Your task to perform on an android device: Search for the best rated headphones on Walmart Image 0: 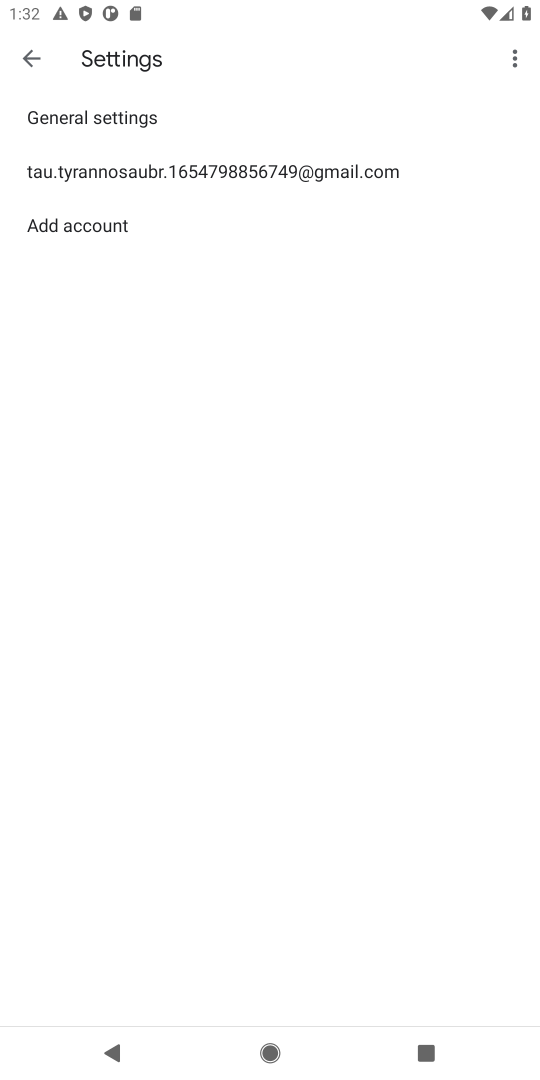
Step 0: press home button
Your task to perform on an android device: Search for the best rated headphones on Walmart Image 1: 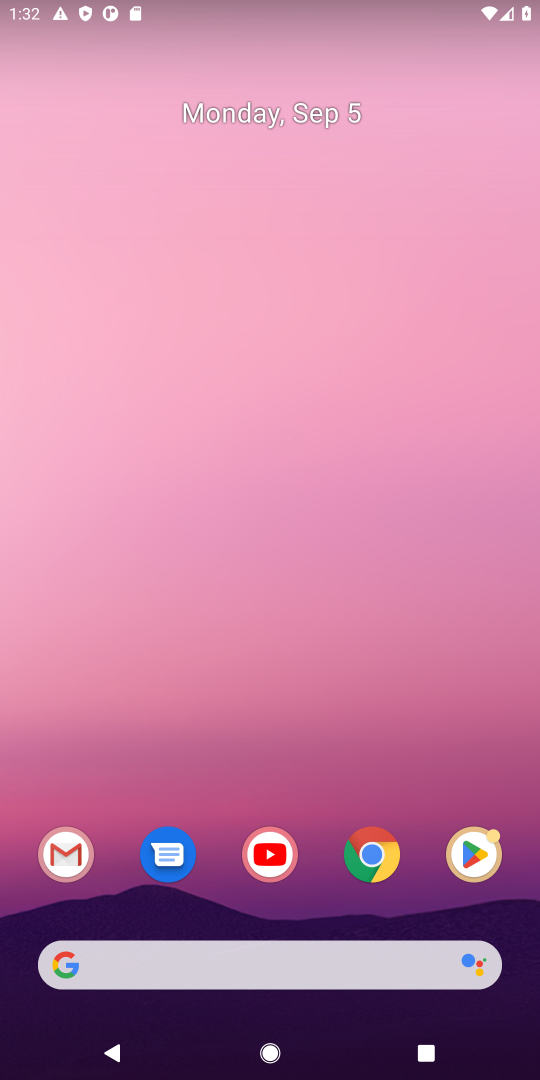
Step 1: click (367, 959)
Your task to perform on an android device: Search for the best rated headphones on Walmart Image 2: 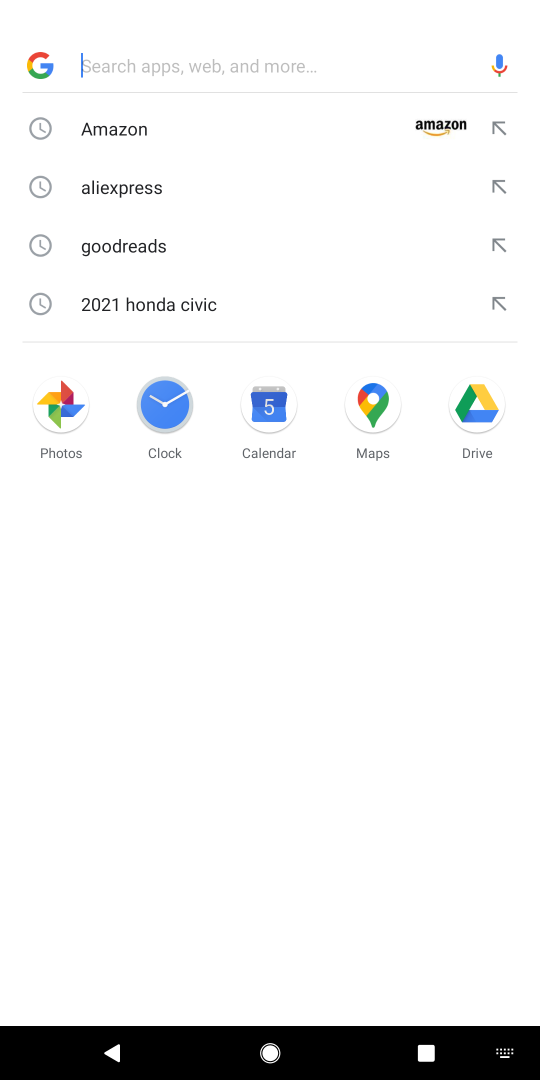
Step 2: type "walmart"
Your task to perform on an android device: Search for the best rated headphones on Walmart Image 3: 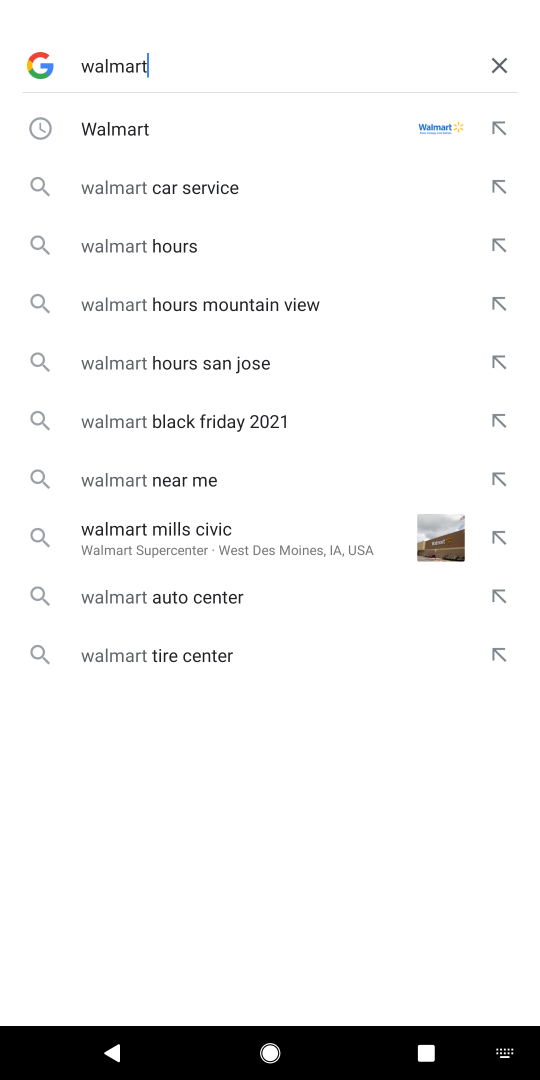
Step 3: press enter
Your task to perform on an android device: Search for the best rated headphones on Walmart Image 4: 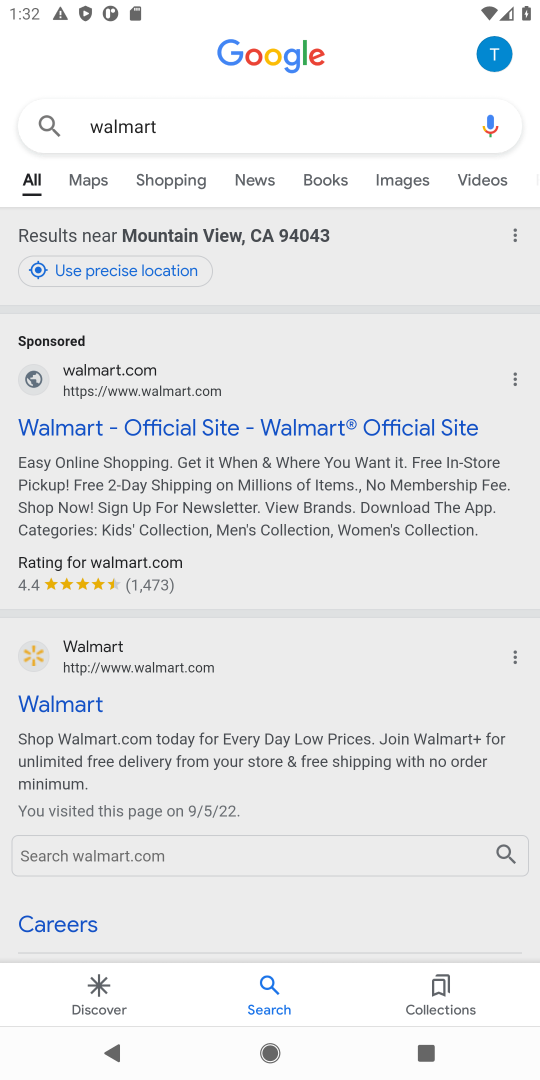
Step 4: click (285, 439)
Your task to perform on an android device: Search for the best rated headphones on Walmart Image 5: 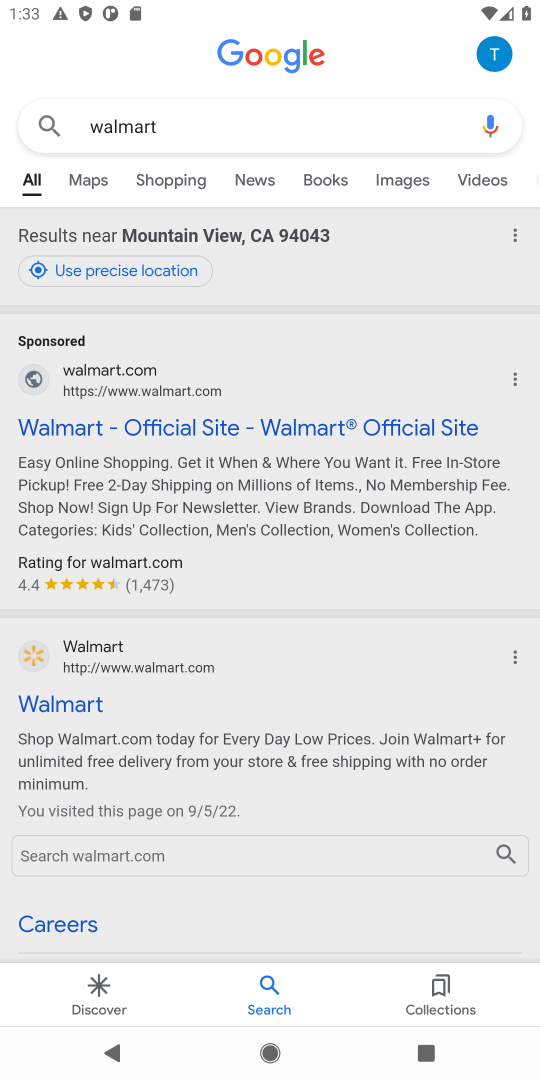
Step 5: click (175, 421)
Your task to perform on an android device: Search for the best rated headphones on Walmart Image 6: 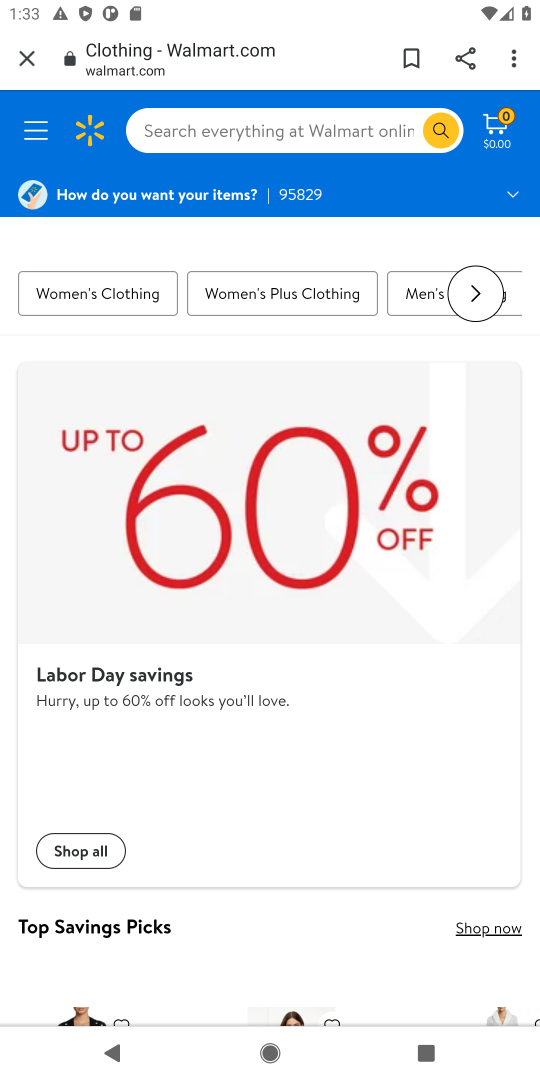
Step 6: click (327, 124)
Your task to perform on an android device: Search for the best rated headphones on Walmart Image 7: 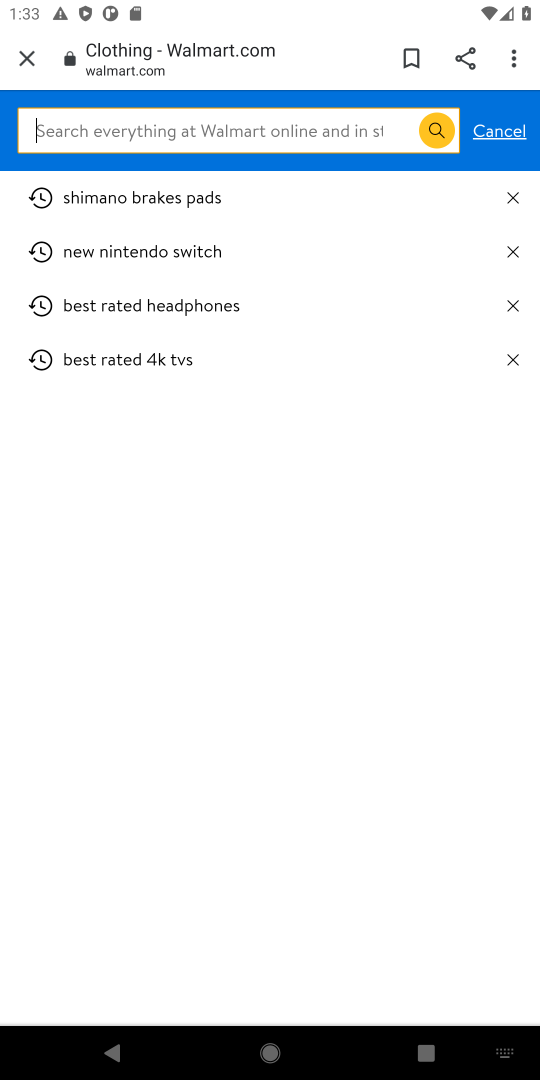
Step 7: click (176, 304)
Your task to perform on an android device: Search for the best rated headphones on Walmart Image 8: 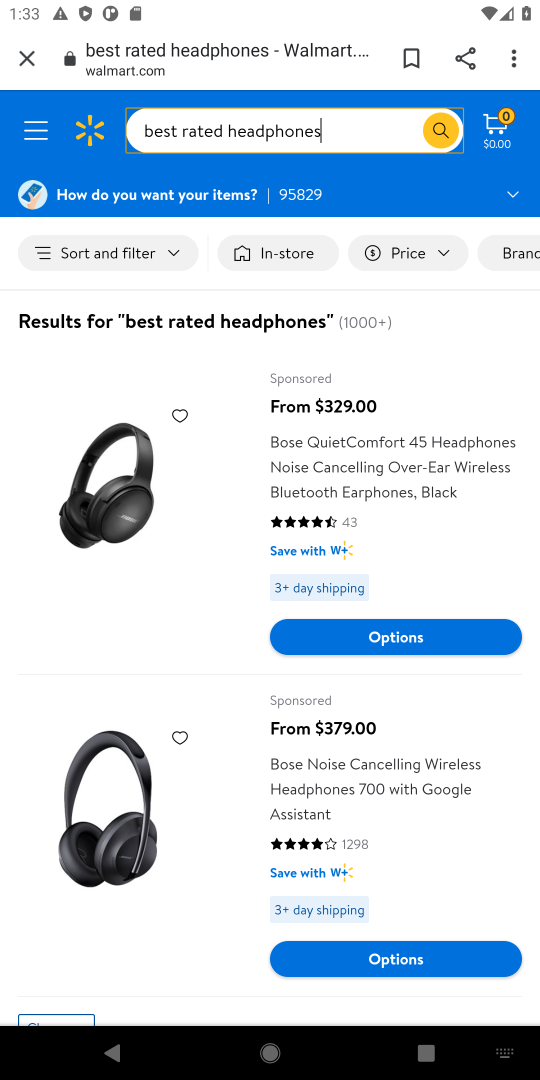
Step 8: task complete